Your task to perform on an android device: toggle javascript in the chrome app Image 0: 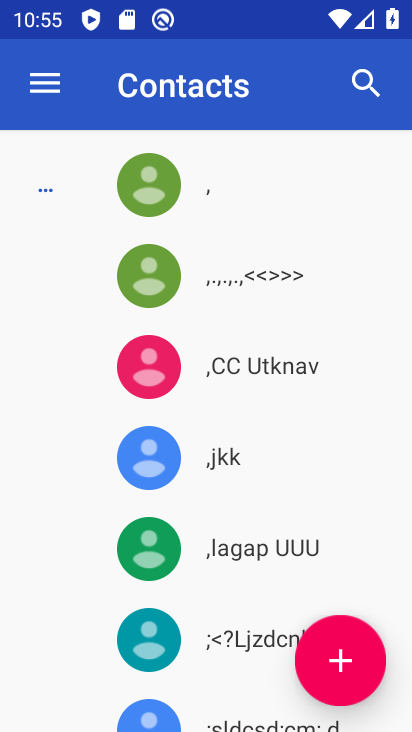
Step 0: press home button
Your task to perform on an android device: toggle javascript in the chrome app Image 1: 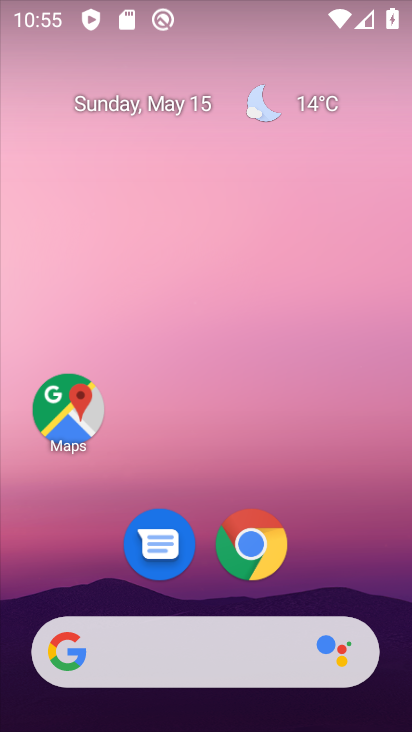
Step 1: click (250, 548)
Your task to perform on an android device: toggle javascript in the chrome app Image 2: 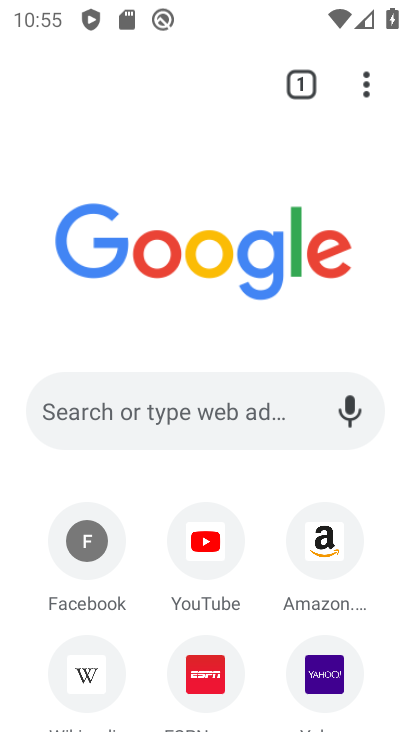
Step 2: drag from (366, 95) to (274, 596)
Your task to perform on an android device: toggle javascript in the chrome app Image 3: 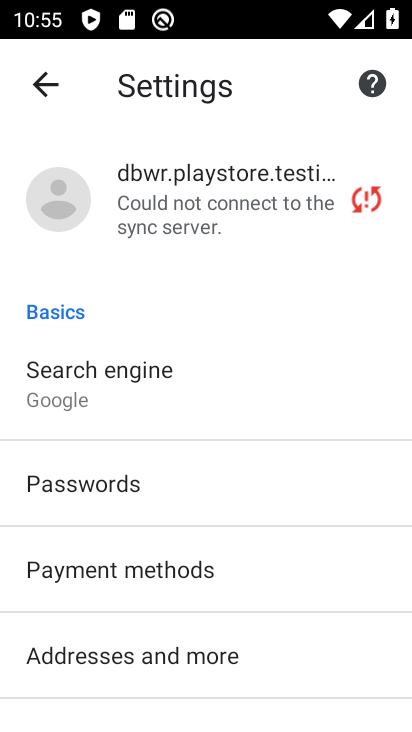
Step 3: drag from (245, 650) to (341, 352)
Your task to perform on an android device: toggle javascript in the chrome app Image 4: 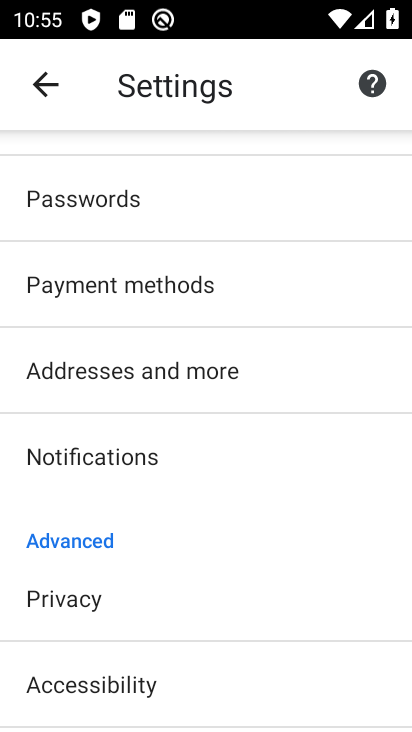
Step 4: drag from (228, 612) to (317, 411)
Your task to perform on an android device: toggle javascript in the chrome app Image 5: 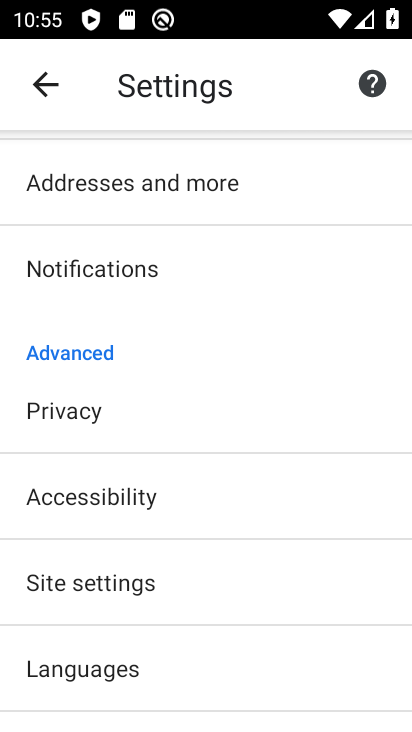
Step 5: drag from (174, 659) to (290, 412)
Your task to perform on an android device: toggle javascript in the chrome app Image 6: 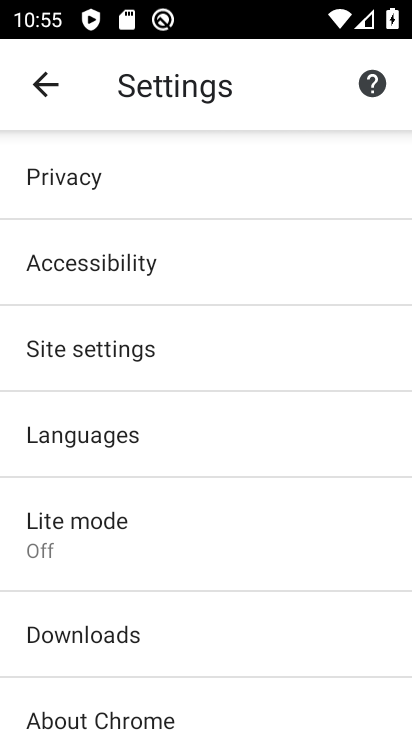
Step 6: click (181, 351)
Your task to perform on an android device: toggle javascript in the chrome app Image 7: 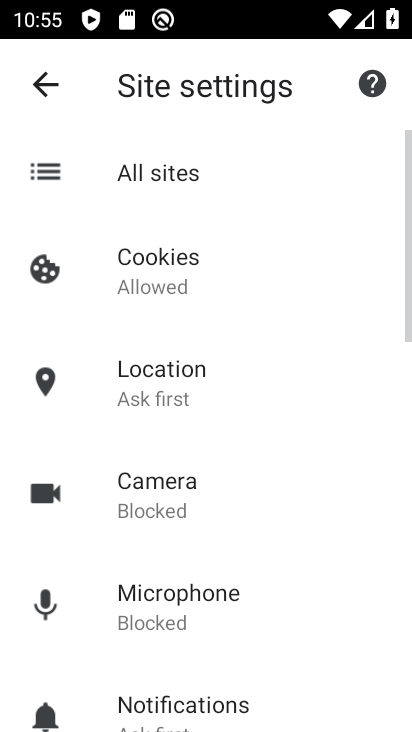
Step 7: drag from (193, 610) to (281, 286)
Your task to perform on an android device: toggle javascript in the chrome app Image 8: 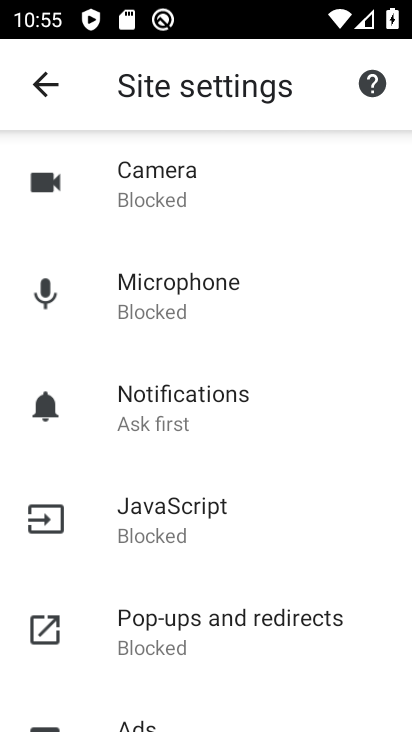
Step 8: click (204, 514)
Your task to perform on an android device: toggle javascript in the chrome app Image 9: 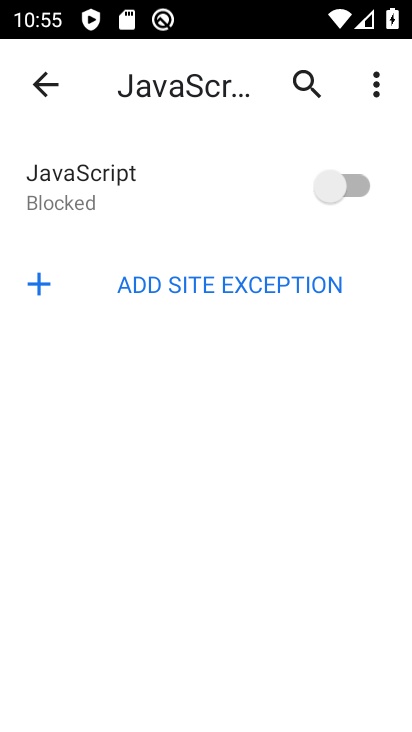
Step 9: click (373, 172)
Your task to perform on an android device: toggle javascript in the chrome app Image 10: 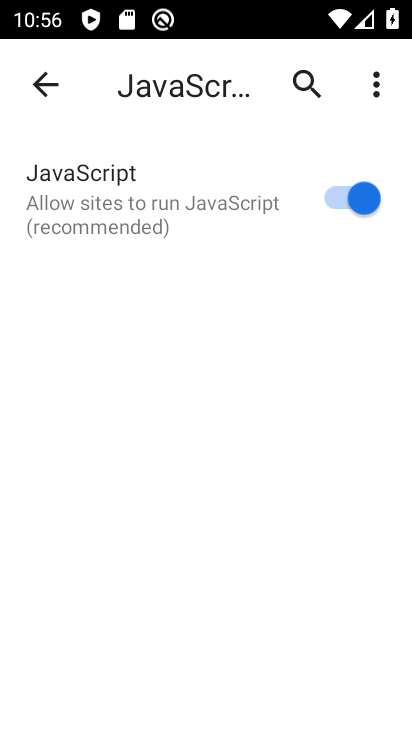
Step 10: task complete